Your task to perform on an android device: Go to privacy settings Image 0: 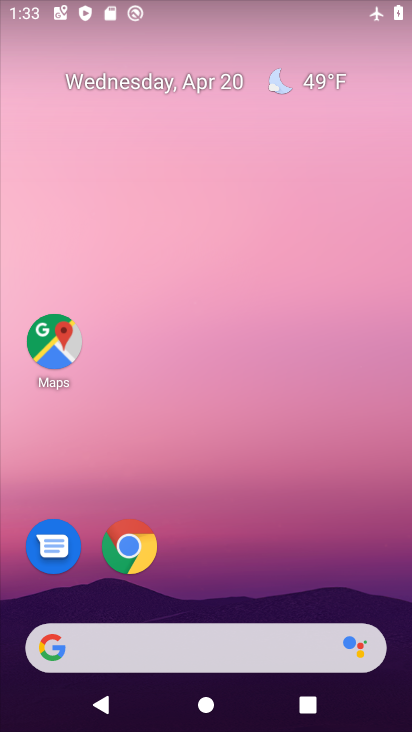
Step 0: drag from (283, 544) to (351, 221)
Your task to perform on an android device: Go to privacy settings Image 1: 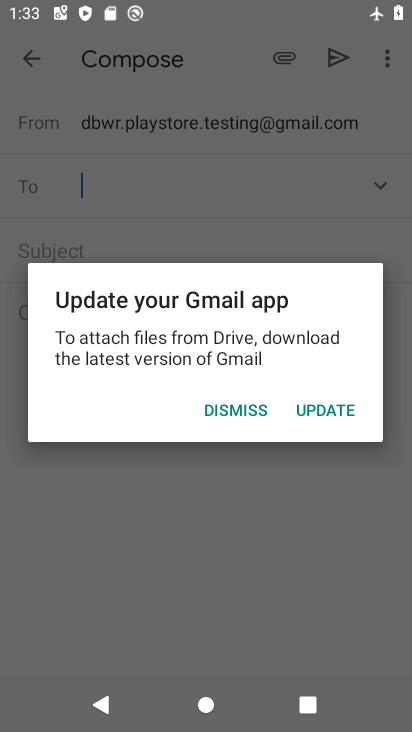
Step 1: press back button
Your task to perform on an android device: Go to privacy settings Image 2: 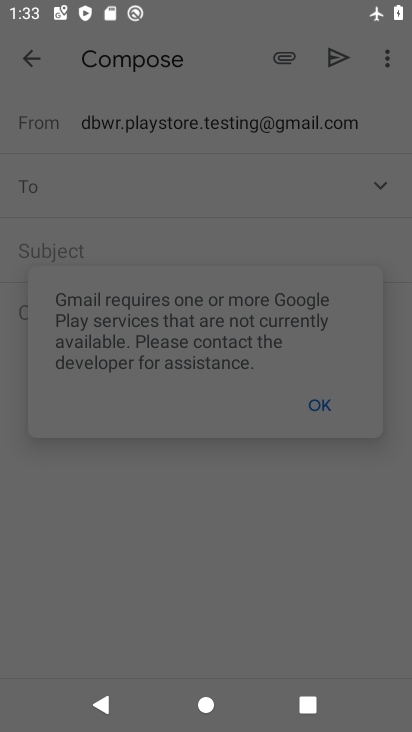
Step 2: press home button
Your task to perform on an android device: Go to privacy settings Image 3: 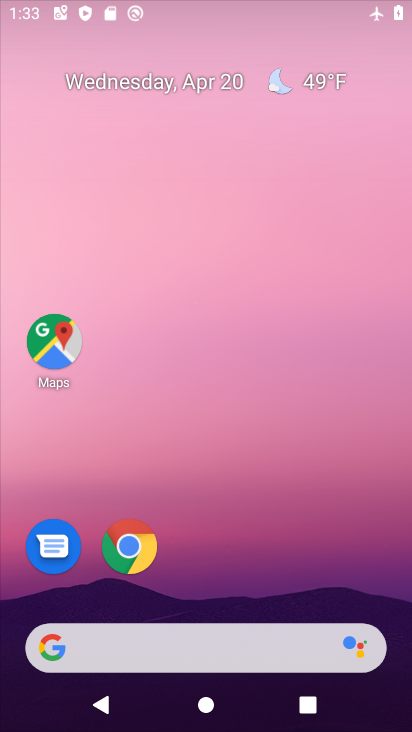
Step 3: drag from (273, 408) to (299, 217)
Your task to perform on an android device: Go to privacy settings Image 4: 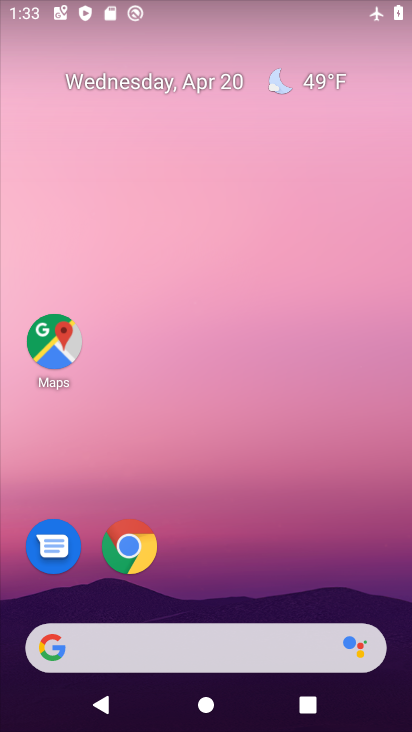
Step 4: drag from (274, 620) to (339, 111)
Your task to perform on an android device: Go to privacy settings Image 5: 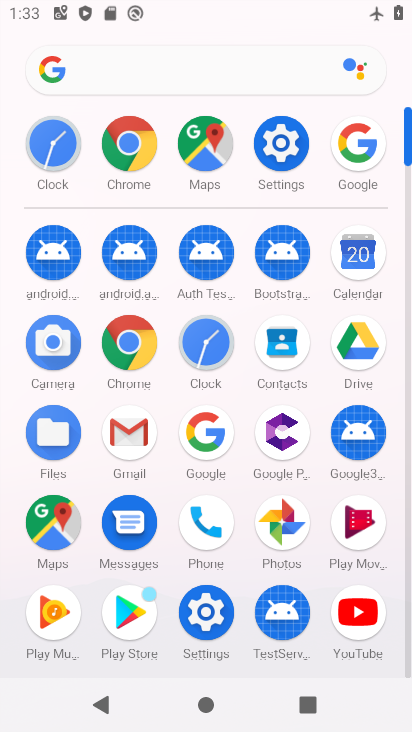
Step 5: click (127, 142)
Your task to perform on an android device: Go to privacy settings Image 6: 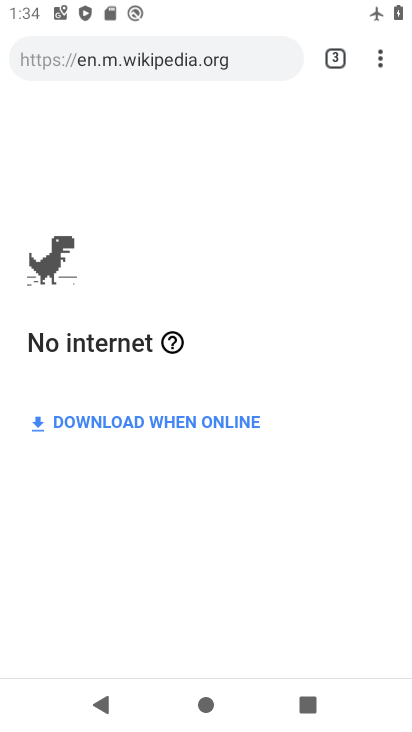
Step 6: click (369, 58)
Your task to perform on an android device: Go to privacy settings Image 7: 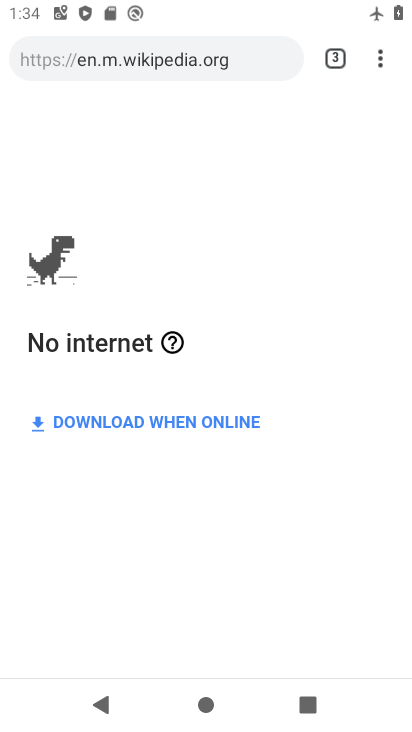
Step 7: click (382, 40)
Your task to perform on an android device: Go to privacy settings Image 8: 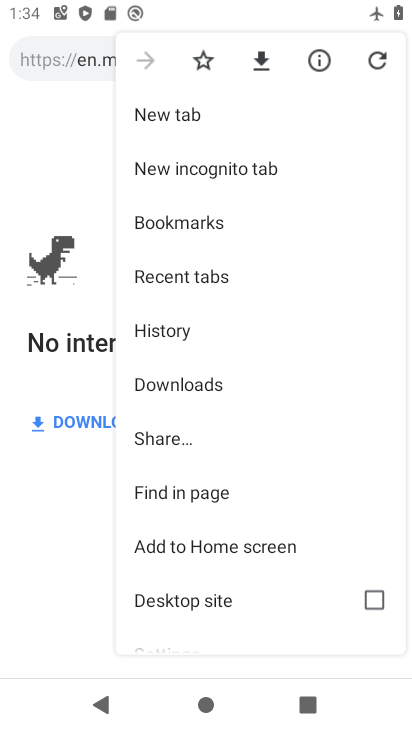
Step 8: drag from (229, 591) to (250, 216)
Your task to perform on an android device: Go to privacy settings Image 9: 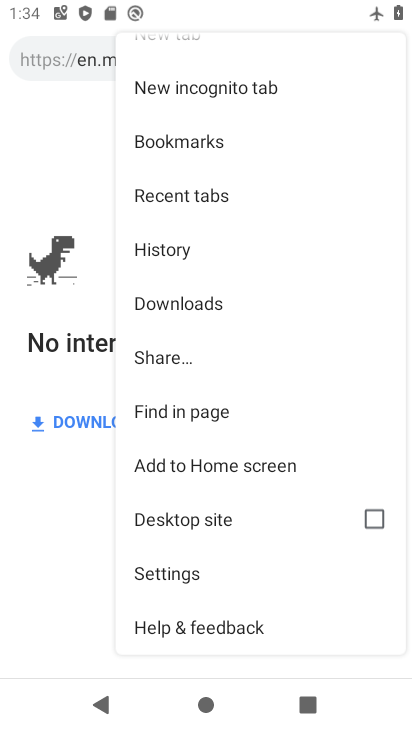
Step 9: click (200, 573)
Your task to perform on an android device: Go to privacy settings Image 10: 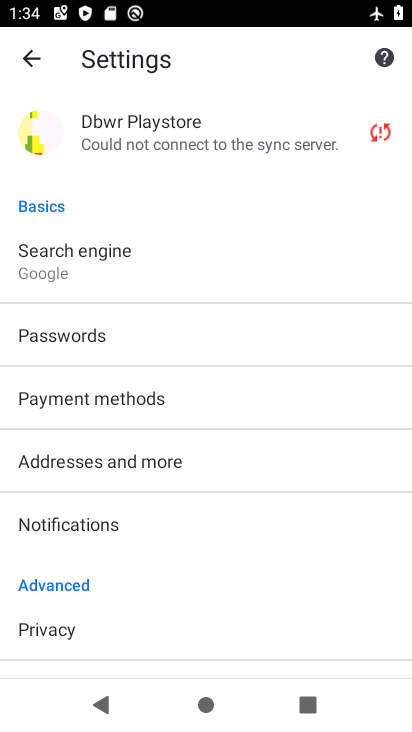
Step 10: drag from (184, 617) to (303, 199)
Your task to perform on an android device: Go to privacy settings Image 11: 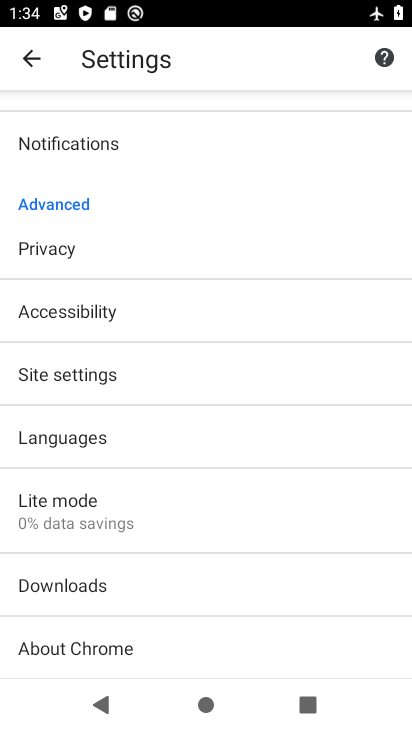
Step 11: click (100, 259)
Your task to perform on an android device: Go to privacy settings Image 12: 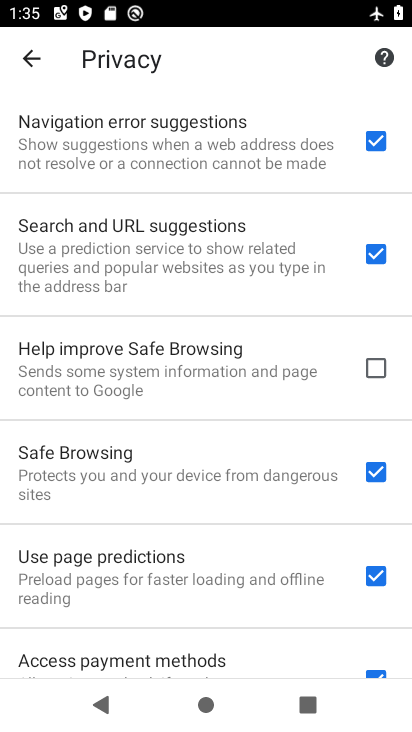
Step 12: task complete